Your task to perform on an android device: see creations saved in the google photos Image 0: 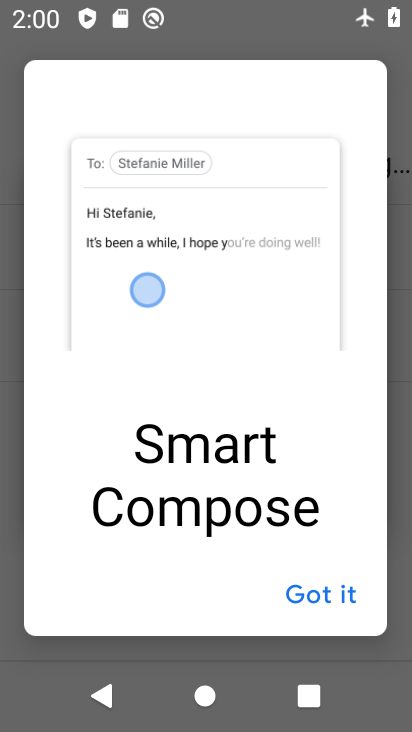
Step 0: press home button
Your task to perform on an android device: see creations saved in the google photos Image 1: 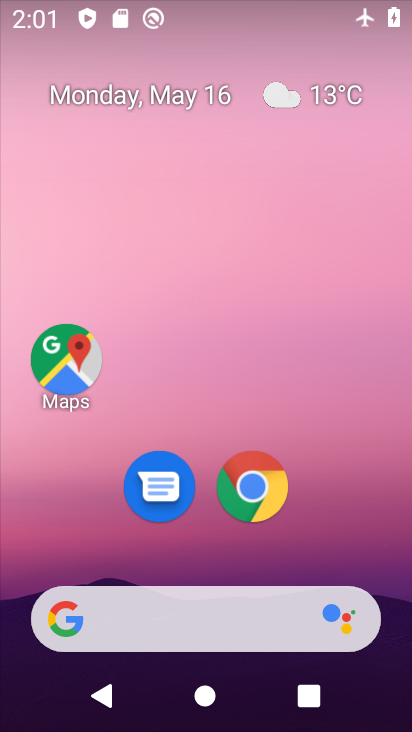
Step 1: drag from (375, 443) to (407, 23)
Your task to perform on an android device: see creations saved in the google photos Image 2: 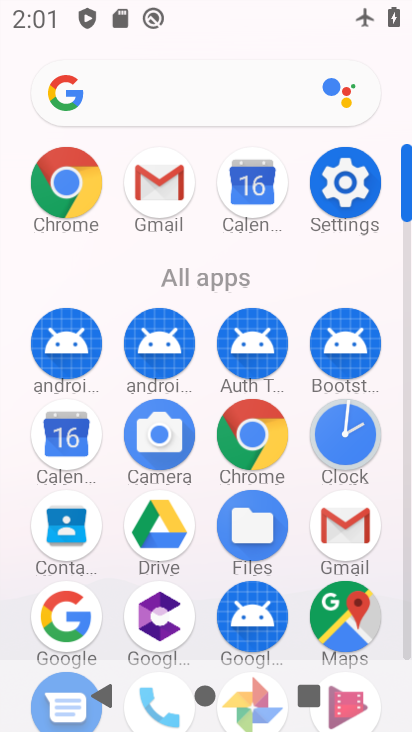
Step 2: drag from (398, 493) to (399, 107)
Your task to perform on an android device: see creations saved in the google photos Image 3: 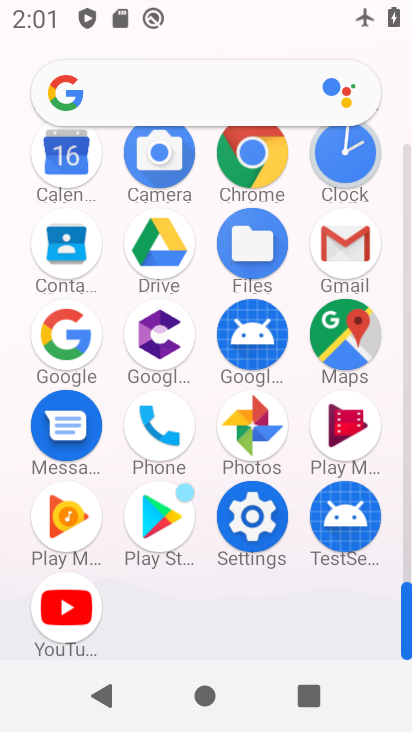
Step 3: click (243, 444)
Your task to perform on an android device: see creations saved in the google photos Image 4: 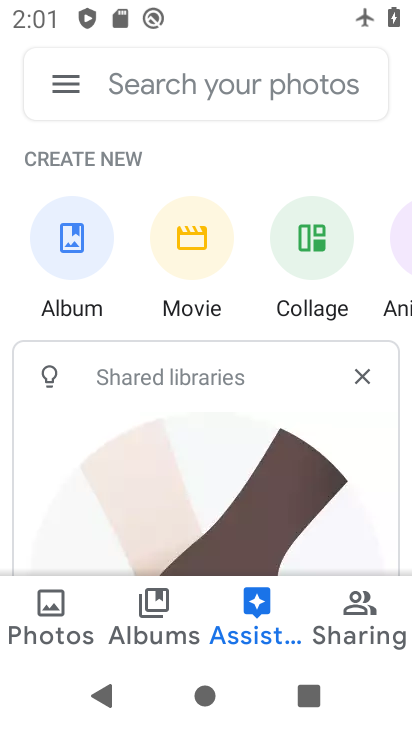
Step 4: click (53, 608)
Your task to perform on an android device: see creations saved in the google photos Image 5: 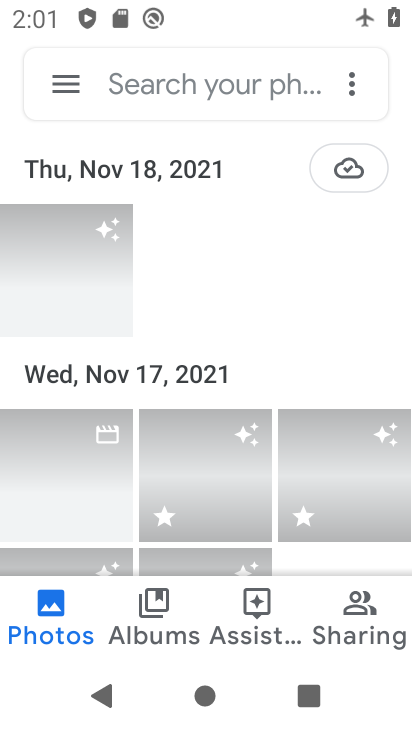
Step 5: click (144, 619)
Your task to perform on an android device: see creations saved in the google photos Image 6: 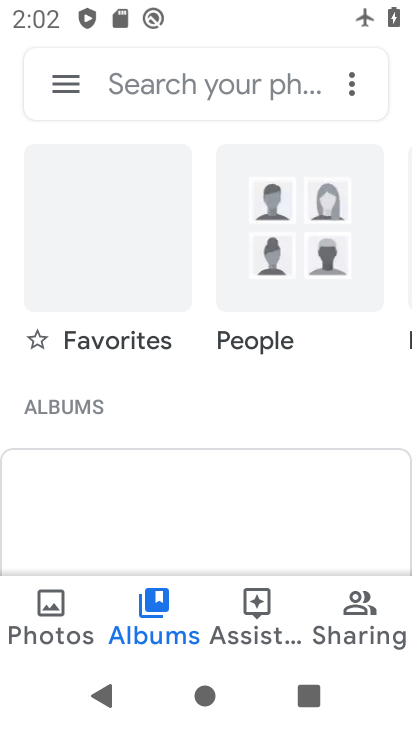
Step 6: task complete